Your task to perform on an android device: remove spam from my inbox in the gmail app Image 0: 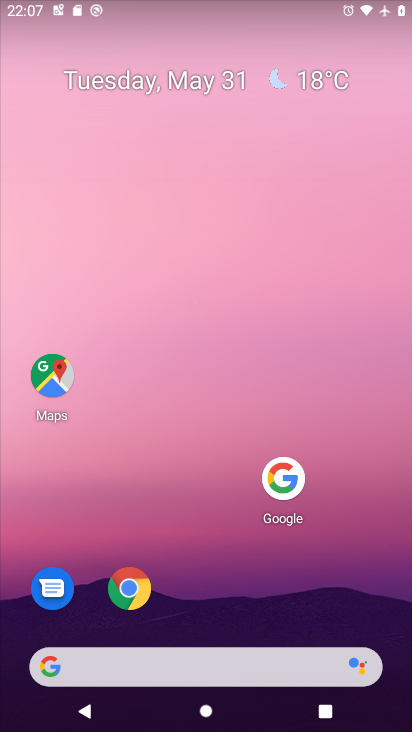
Step 0: drag from (181, 618) to (275, 172)
Your task to perform on an android device: remove spam from my inbox in the gmail app Image 1: 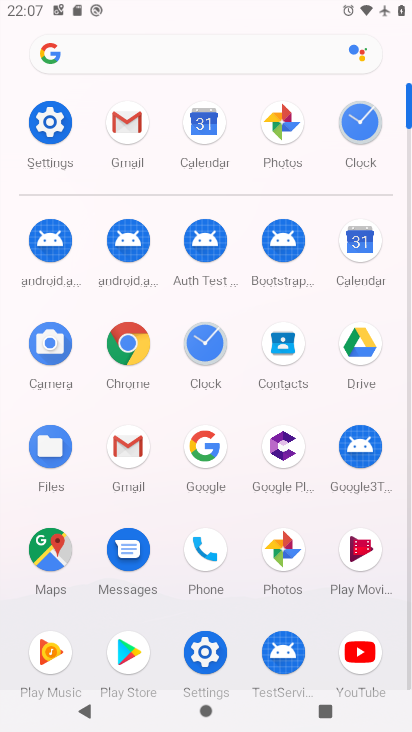
Step 1: click (128, 134)
Your task to perform on an android device: remove spam from my inbox in the gmail app Image 2: 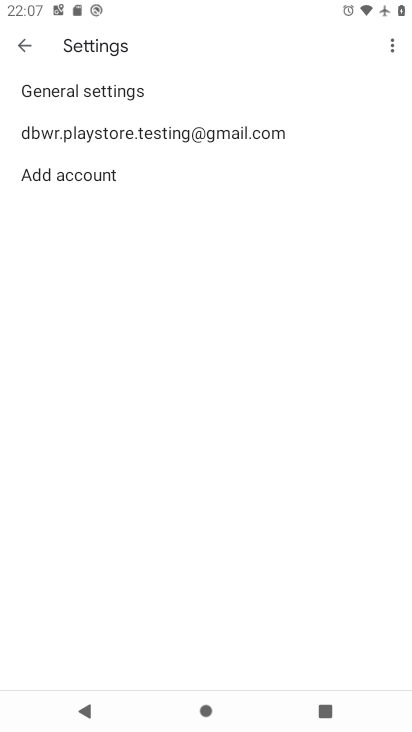
Step 2: click (25, 47)
Your task to perform on an android device: remove spam from my inbox in the gmail app Image 3: 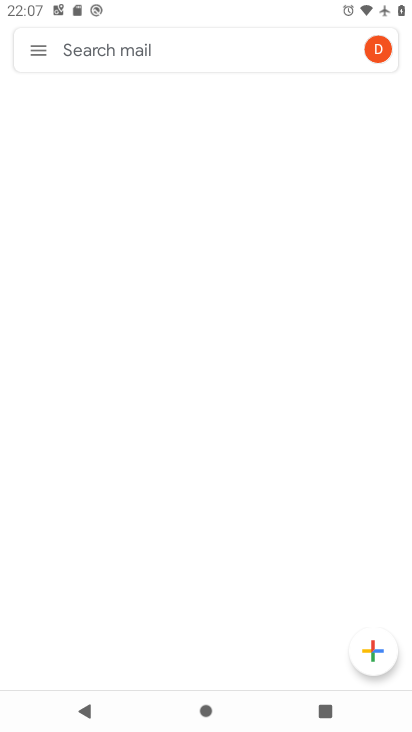
Step 3: click (37, 52)
Your task to perform on an android device: remove spam from my inbox in the gmail app Image 4: 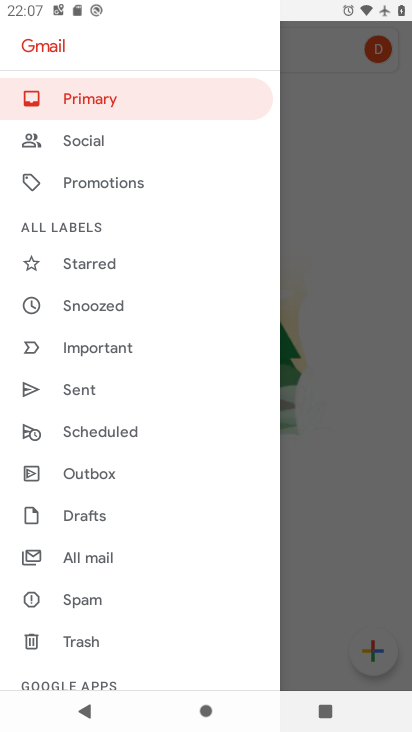
Step 4: click (89, 596)
Your task to perform on an android device: remove spam from my inbox in the gmail app Image 5: 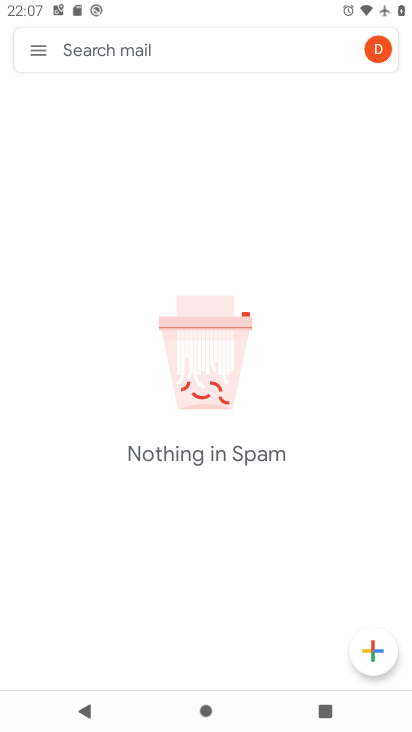
Step 5: task complete